Your task to perform on an android device: Add apple airpods pro to the cart on ebay Image 0: 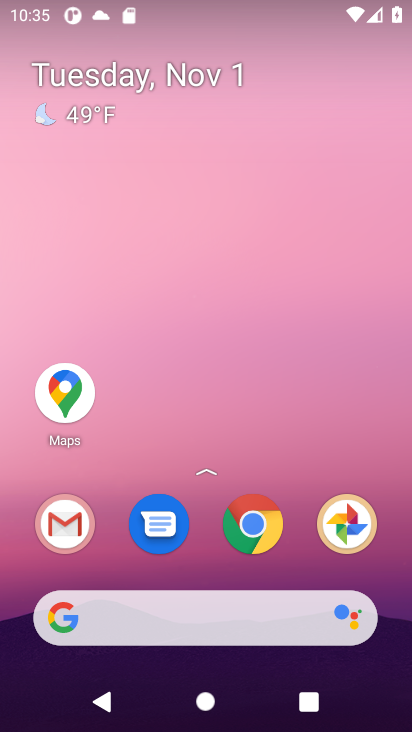
Step 0: press home button
Your task to perform on an android device: Add apple airpods pro to the cart on ebay Image 1: 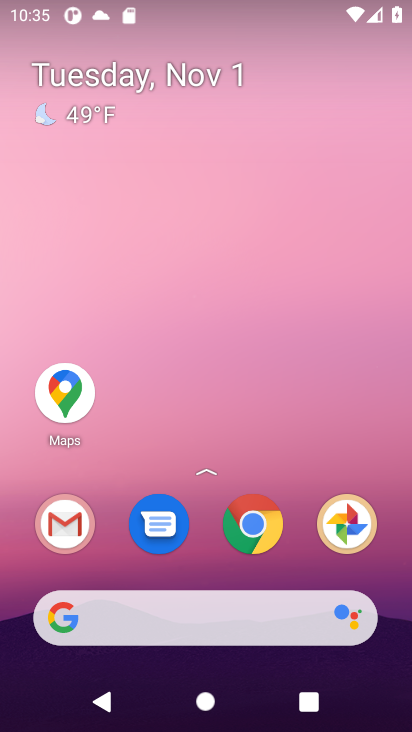
Step 1: click (87, 618)
Your task to perform on an android device: Add apple airpods pro to the cart on ebay Image 2: 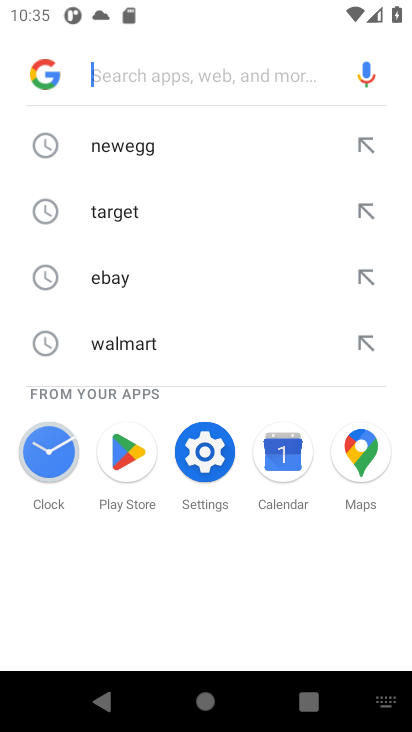
Step 2: type "ebay"
Your task to perform on an android device: Add apple airpods pro to the cart on ebay Image 3: 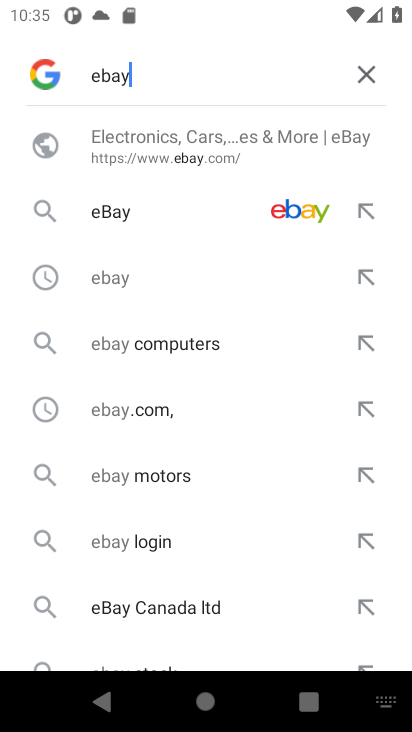
Step 3: press enter
Your task to perform on an android device: Add apple airpods pro to the cart on ebay Image 4: 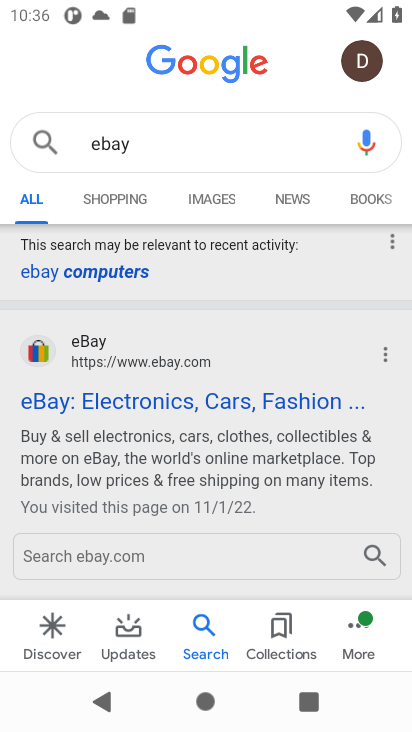
Step 4: click (130, 396)
Your task to perform on an android device: Add apple airpods pro to the cart on ebay Image 5: 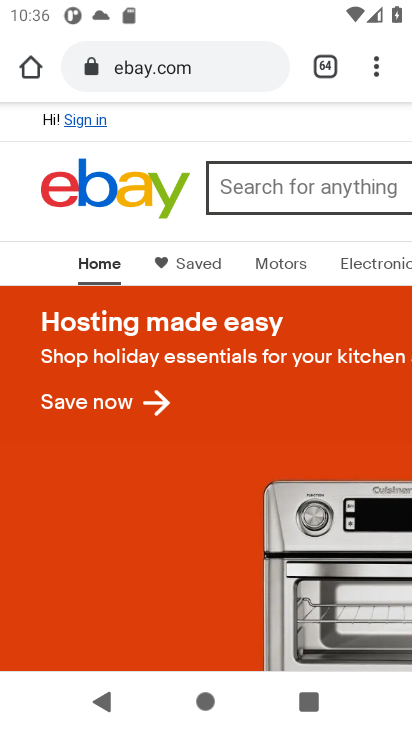
Step 5: click (258, 179)
Your task to perform on an android device: Add apple airpods pro to the cart on ebay Image 6: 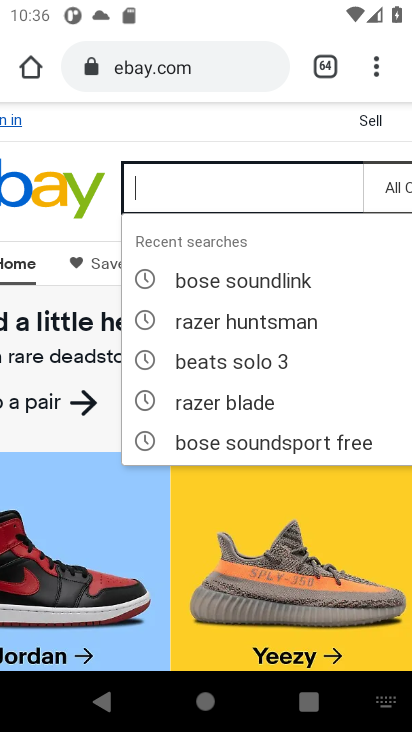
Step 6: type "apple airpods pro"
Your task to perform on an android device: Add apple airpods pro to the cart on ebay Image 7: 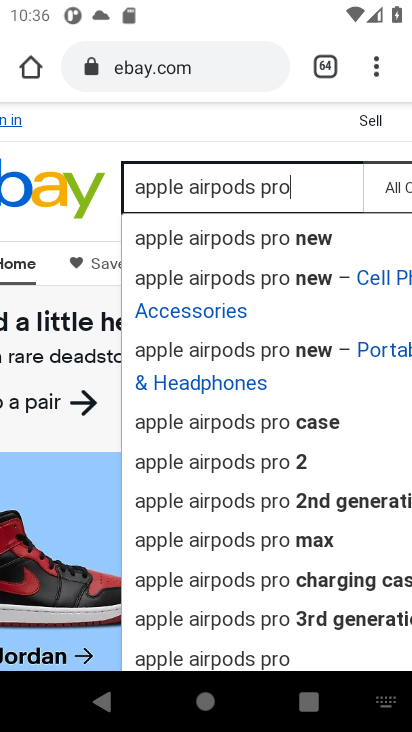
Step 7: press enter
Your task to perform on an android device: Add apple airpods pro to the cart on ebay Image 8: 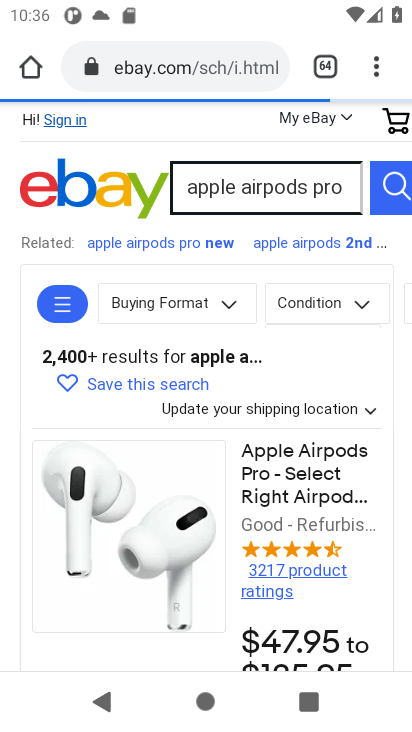
Step 8: drag from (260, 584) to (280, 309)
Your task to perform on an android device: Add apple airpods pro to the cart on ebay Image 9: 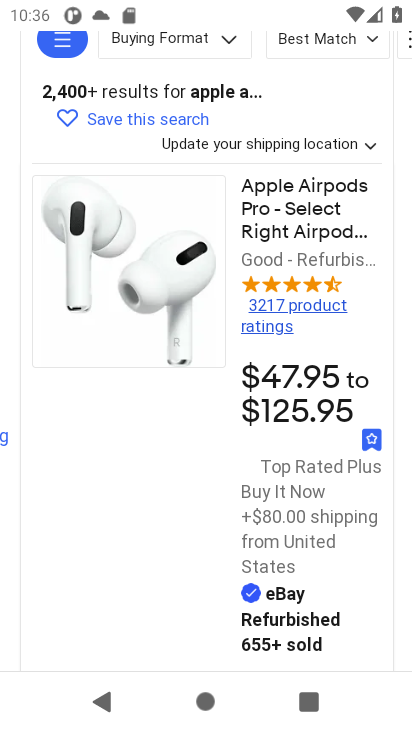
Step 9: drag from (271, 543) to (277, 212)
Your task to perform on an android device: Add apple airpods pro to the cart on ebay Image 10: 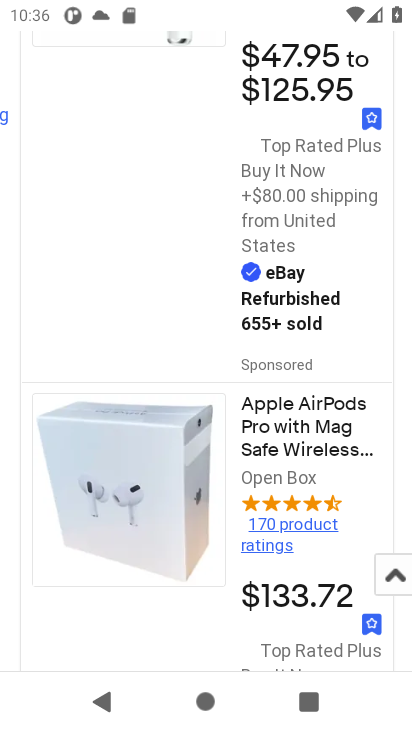
Step 10: click (270, 103)
Your task to perform on an android device: Add apple airpods pro to the cart on ebay Image 11: 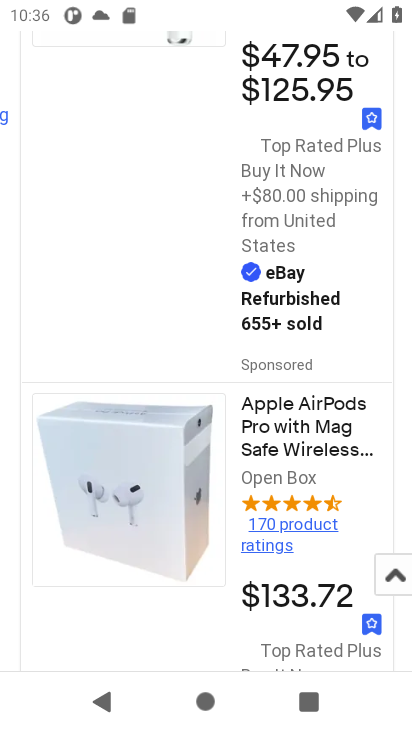
Step 11: click (261, 184)
Your task to perform on an android device: Add apple airpods pro to the cart on ebay Image 12: 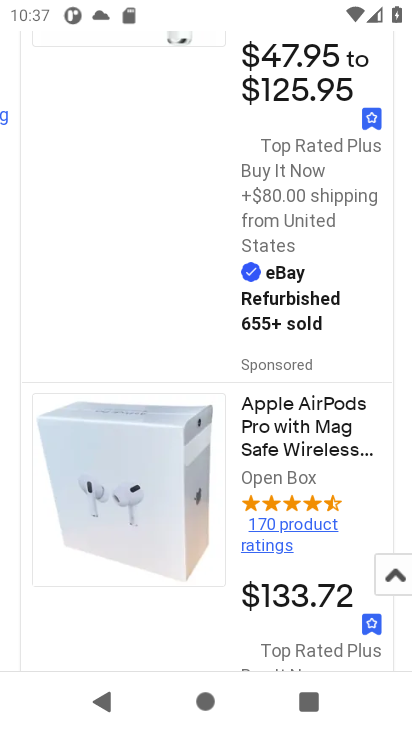
Step 12: task complete